Your task to perform on an android device: Open internet settings Image 0: 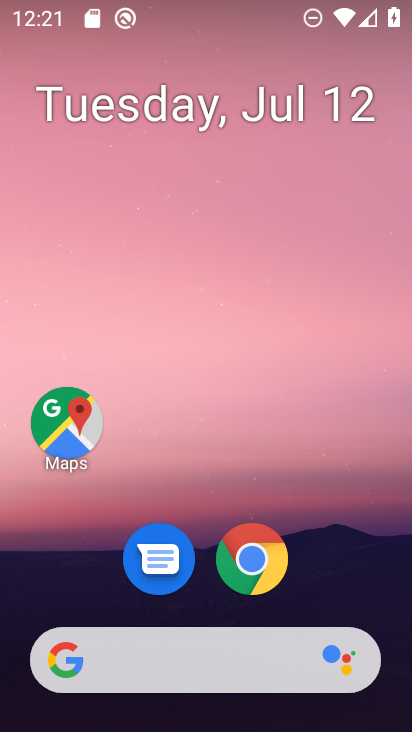
Step 0: drag from (165, 584) to (230, 21)
Your task to perform on an android device: Open internet settings Image 1: 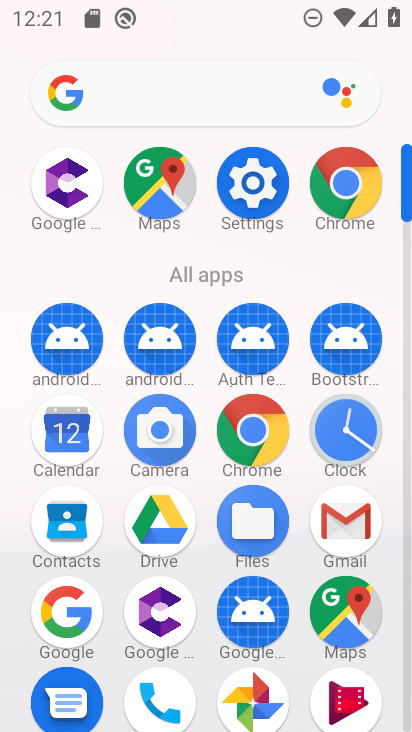
Step 1: click (253, 199)
Your task to perform on an android device: Open internet settings Image 2: 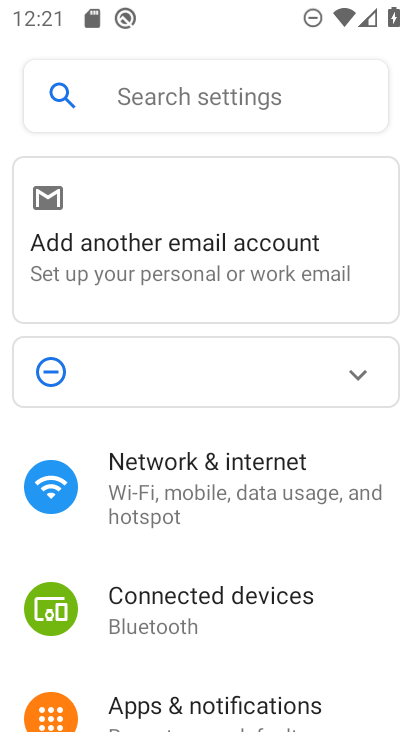
Step 2: click (229, 471)
Your task to perform on an android device: Open internet settings Image 3: 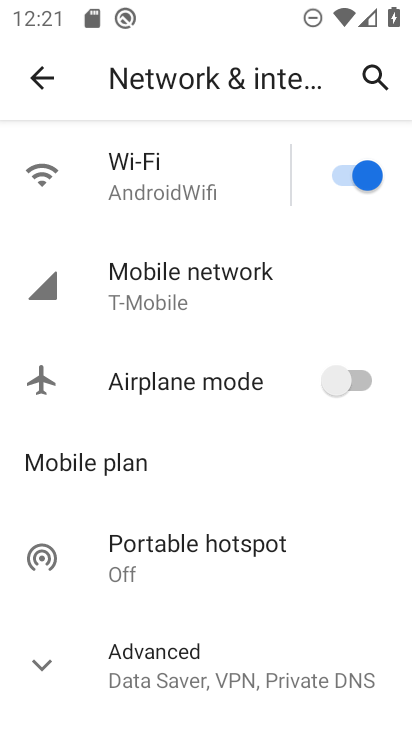
Step 3: task complete